Your task to perform on an android device: turn off sleep mode Image 0: 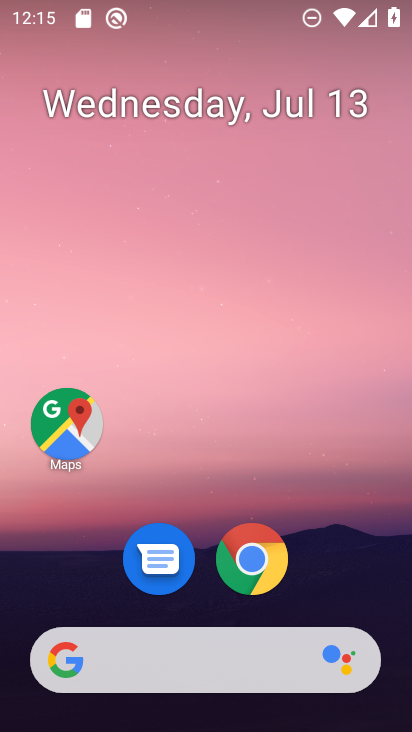
Step 0: drag from (245, 472) to (284, 129)
Your task to perform on an android device: turn off sleep mode Image 1: 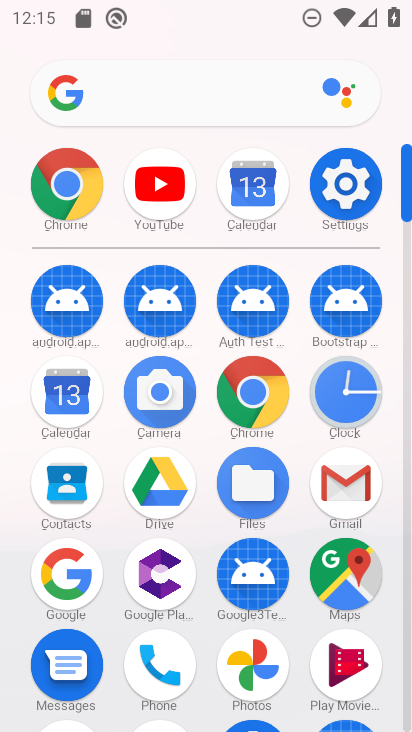
Step 1: click (327, 222)
Your task to perform on an android device: turn off sleep mode Image 2: 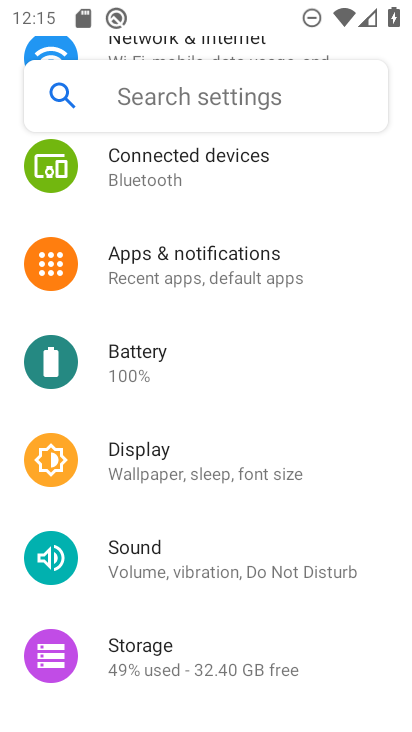
Step 2: drag from (224, 304) to (173, 523)
Your task to perform on an android device: turn off sleep mode Image 3: 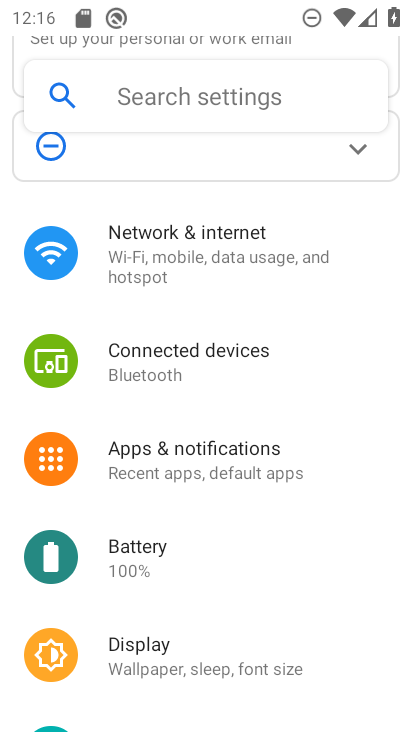
Step 3: click (164, 655)
Your task to perform on an android device: turn off sleep mode Image 4: 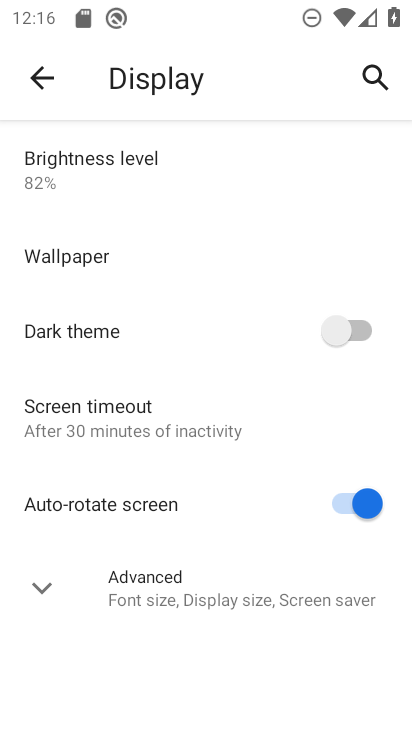
Step 4: click (116, 577)
Your task to perform on an android device: turn off sleep mode Image 5: 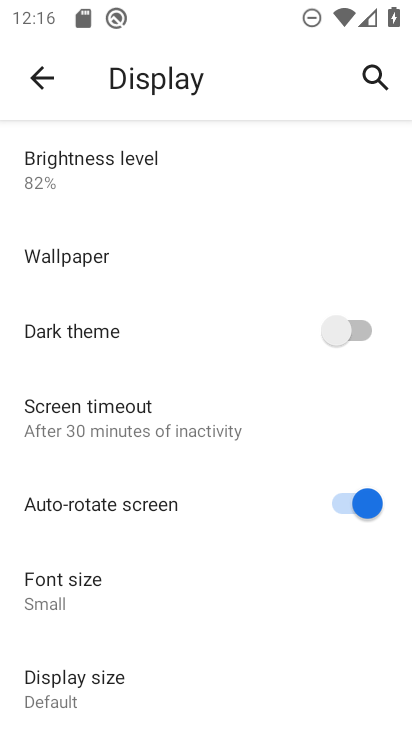
Step 5: task complete